Your task to perform on an android device: Search for razer naga on newegg, select the first entry, add it to the cart, then select checkout. Image 0: 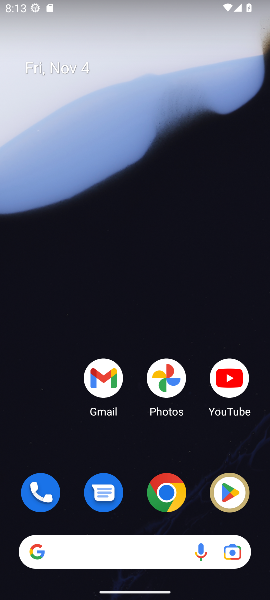
Step 0: drag from (125, 437) to (143, 84)
Your task to perform on an android device: Search for razer naga on newegg, select the first entry, add it to the cart, then select checkout. Image 1: 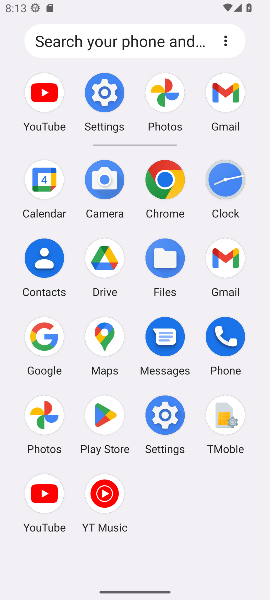
Step 1: click (163, 184)
Your task to perform on an android device: Search for razer naga on newegg, select the first entry, add it to the cart, then select checkout. Image 2: 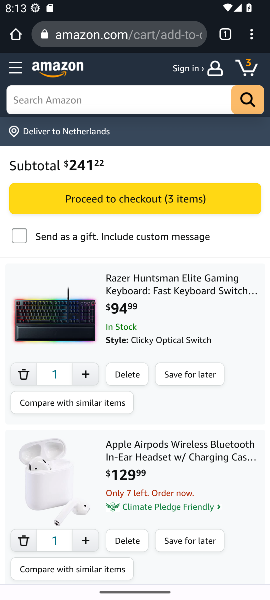
Step 2: click (146, 37)
Your task to perform on an android device: Search for razer naga on newegg, select the first entry, add it to the cart, then select checkout. Image 3: 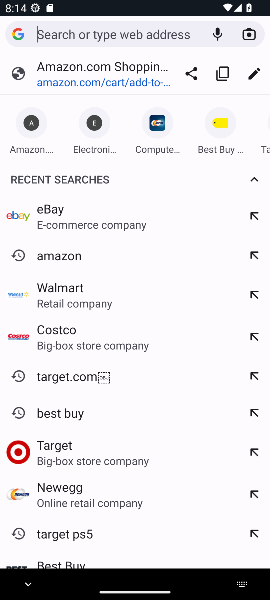
Step 3: type "newegg.com"
Your task to perform on an android device: Search for razer naga on newegg, select the first entry, add it to the cart, then select checkout. Image 4: 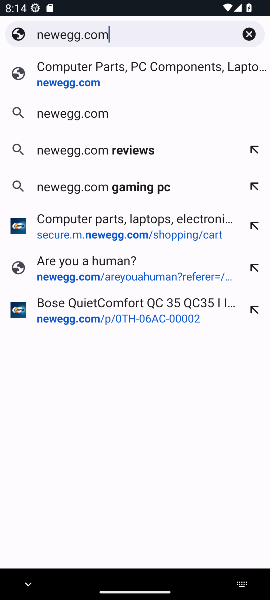
Step 4: press enter
Your task to perform on an android device: Search for razer naga on newegg, select the first entry, add it to the cart, then select checkout. Image 5: 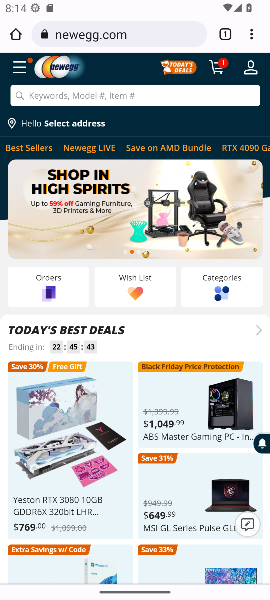
Step 5: click (196, 98)
Your task to perform on an android device: Search for razer naga on newegg, select the first entry, add it to the cart, then select checkout. Image 6: 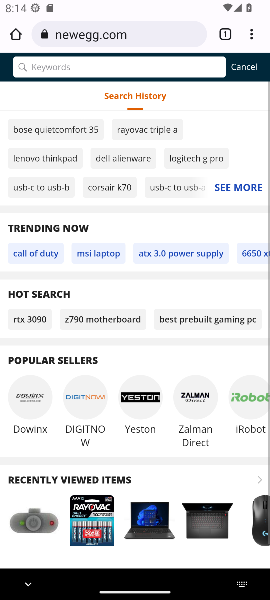
Step 6: type "razer naga"
Your task to perform on an android device: Search for razer naga on newegg, select the first entry, add it to the cart, then select checkout. Image 7: 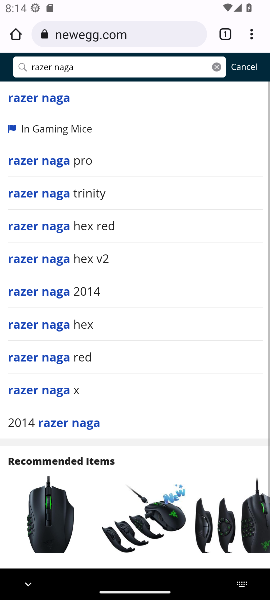
Step 7: press enter
Your task to perform on an android device: Search for razer naga on newegg, select the first entry, add it to the cart, then select checkout. Image 8: 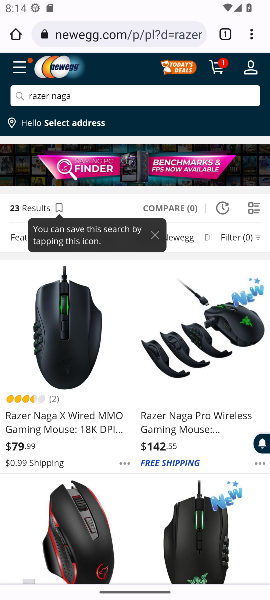
Step 8: click (77, 369)
Your task to perform on an android device: Search for razer naga on newegg, select the first entry, add it to the cart, then select checkout. Image 9: 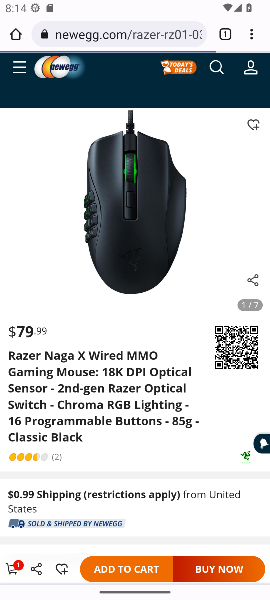
Step 9: drag from (143, 433) to (213, 144)
Your task to perform on an android device: Search for razer naga on newegg, select the first entry, add it to the cart, then select checkout. Image 10: 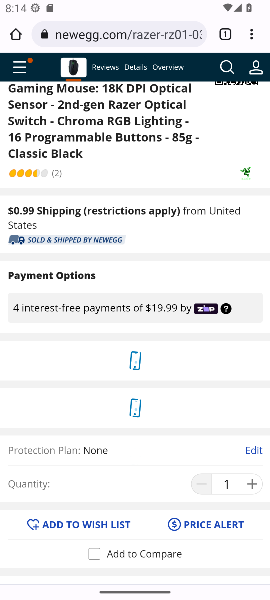
Step 10: click (126, 566)
Your task to perform on an android device: Search for razer naga on newegg, select the first entry, add it to the cart, then select checkout. Image 11: 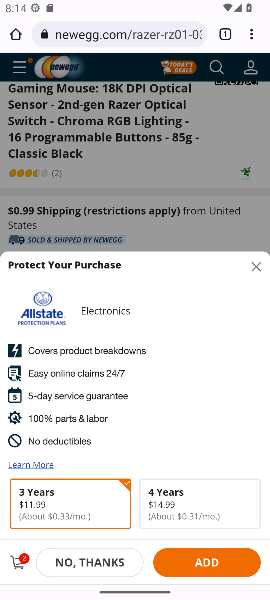
Step 11: click (19, 560)
Your task to perform on an android device: Search for razer naga on newegg, select the first entry, add it to the cart, then select checkout. Image 12: 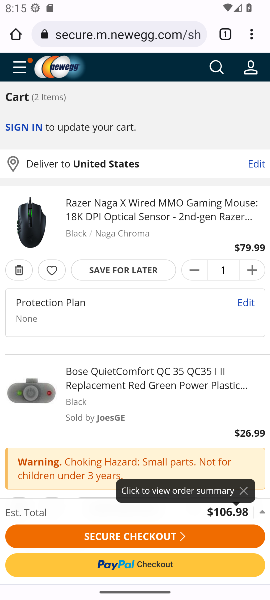
Step 12: click (150, 536)
Your task to perform on an android device: Search for razer naga on newegg, select the first entry, add it to the cart, then select checkout. Image 13: 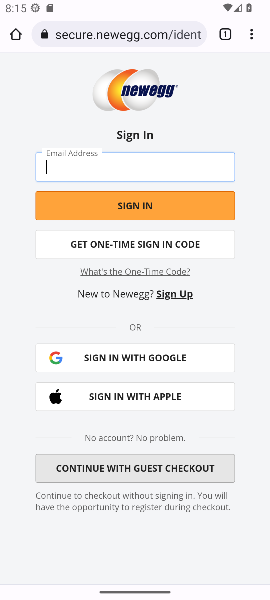
Step 13: task complete